Your task to perform on an android device: Empty the shopping cart on newegg. Search for "bose quietcomfort 35" on newegg, select the first entry, add it to the cart, then select checkout. Image 0: 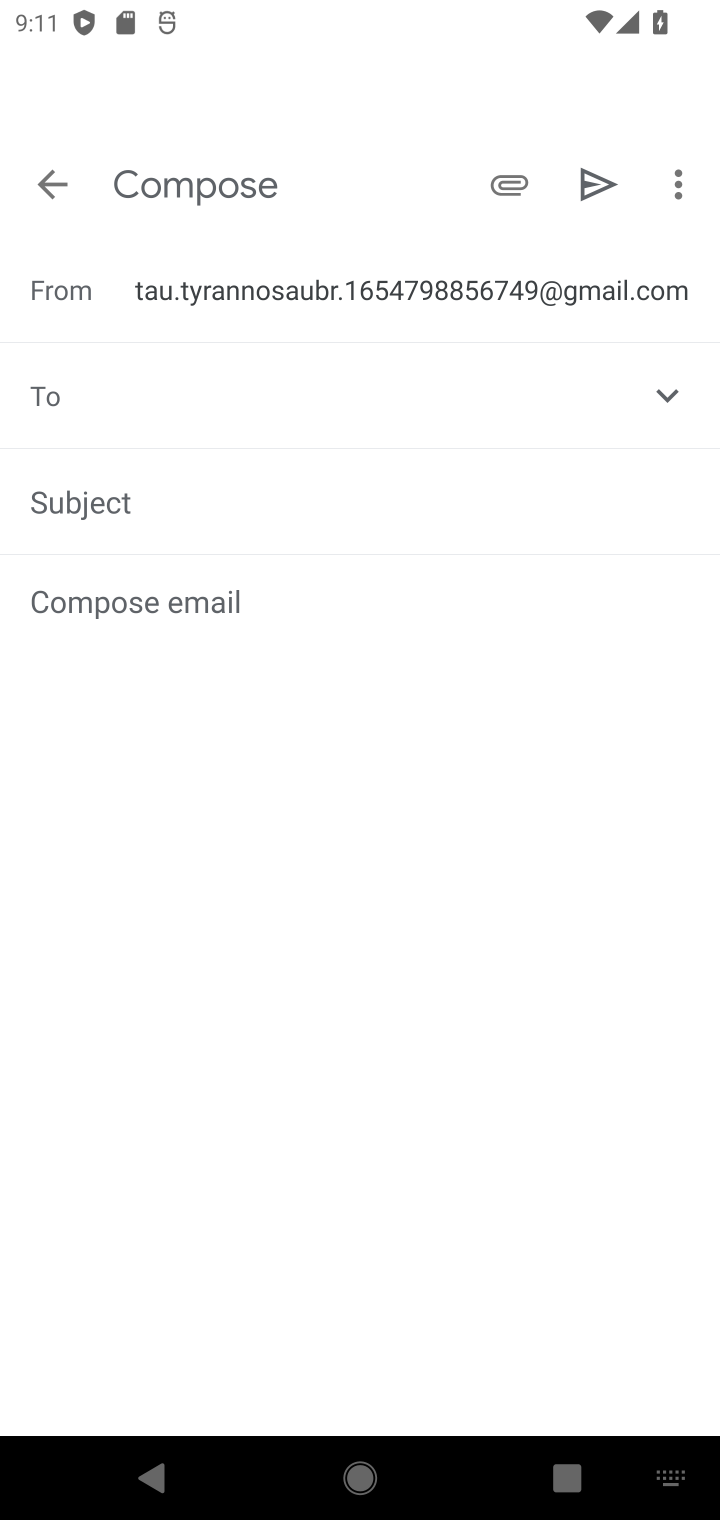
Step 0: press home button
Your task to perform on an android device: Empty the shopping cart on newegg. Search for "bose quietcomfort 35" on newegg, select the first entry, add it to the cart, then select checkout. Image 1: 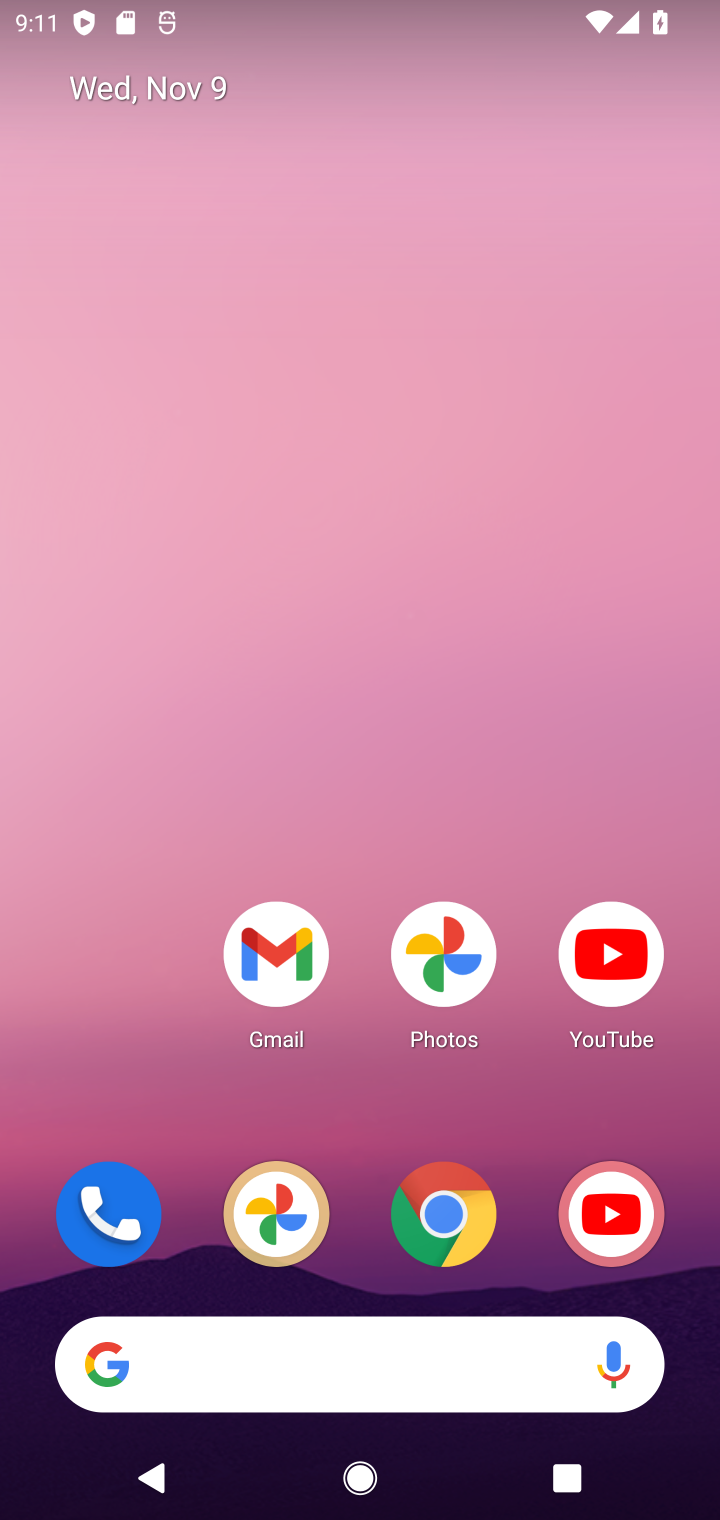
Step 1: drag from (349, 1098) to (235, 0)
Your task to perform on an android device: Empty the shopping cart on newegg. Search for "bose quietcomfort 35" on newegg, select the first entry, add it to the cart, then select checkout. Image 2: 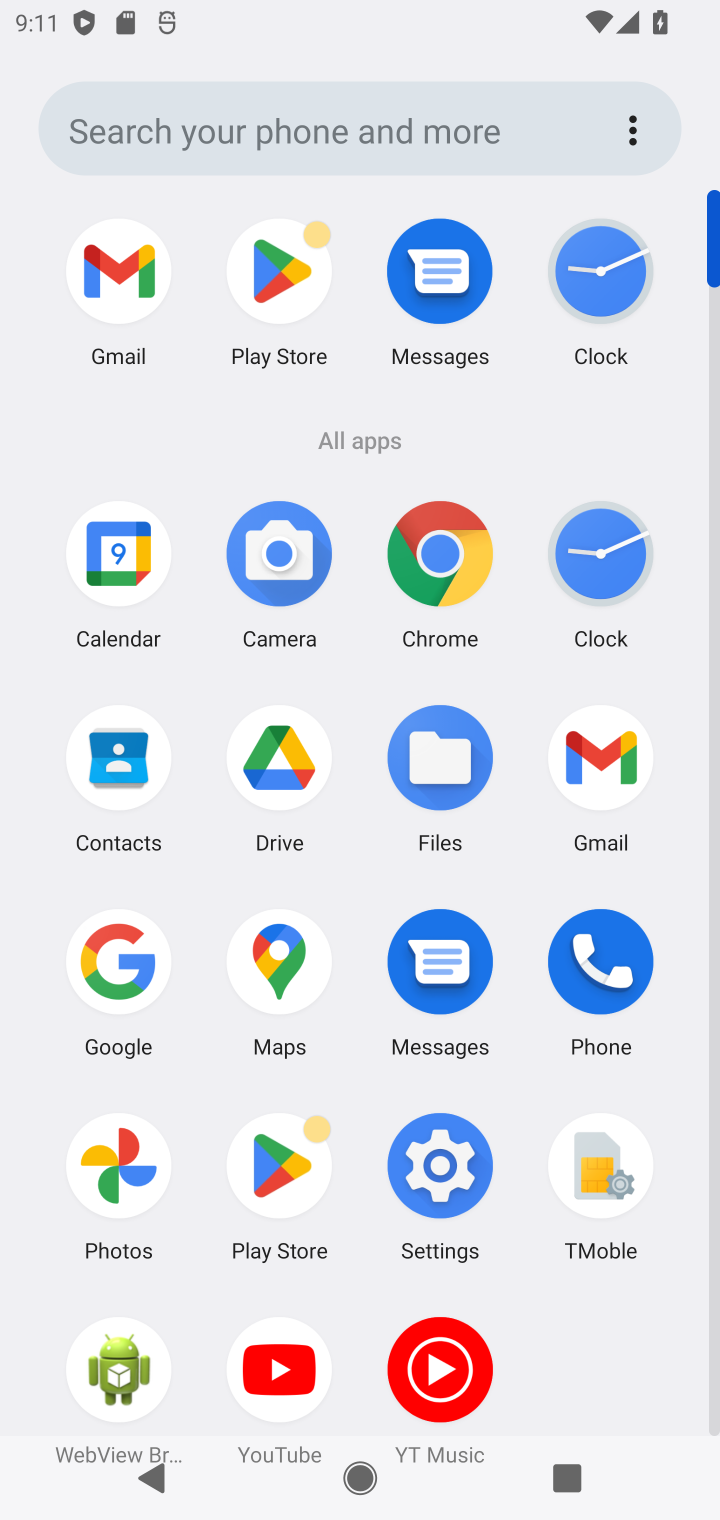
Step 2: click (434, 564)
Your task to perform on an android device: Empty the shopping cart on newegg. Search for "bose quietcomfort 35" on newegg, select the first entry, add it to the cart, then select checkout. Image 3: 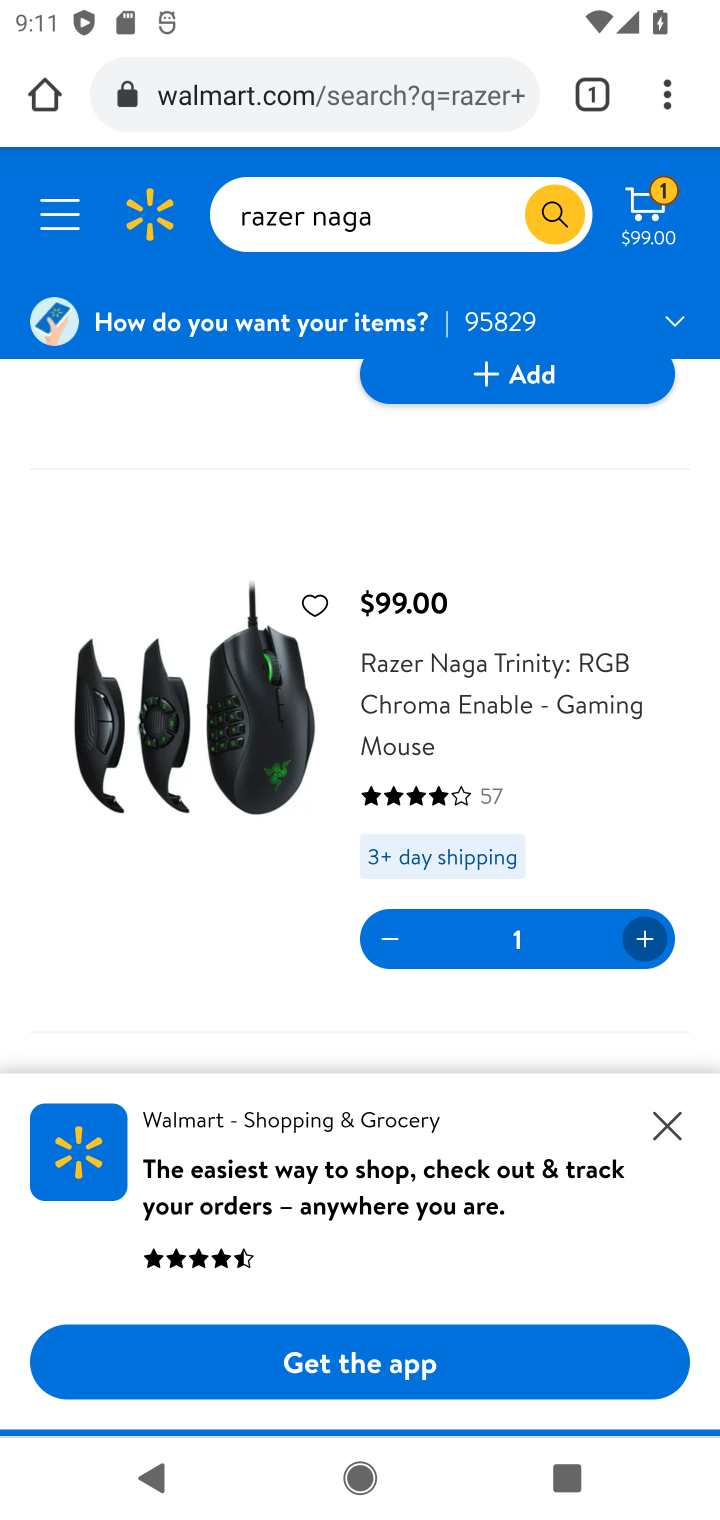
Step 3: click (336, 97)
Your task to perform on an android device: Empty the shopping cart on newegg. Search for "bose quietcomfort 35" on newegg, select the first entry, add it to the cart, then select checkout. Image 4: 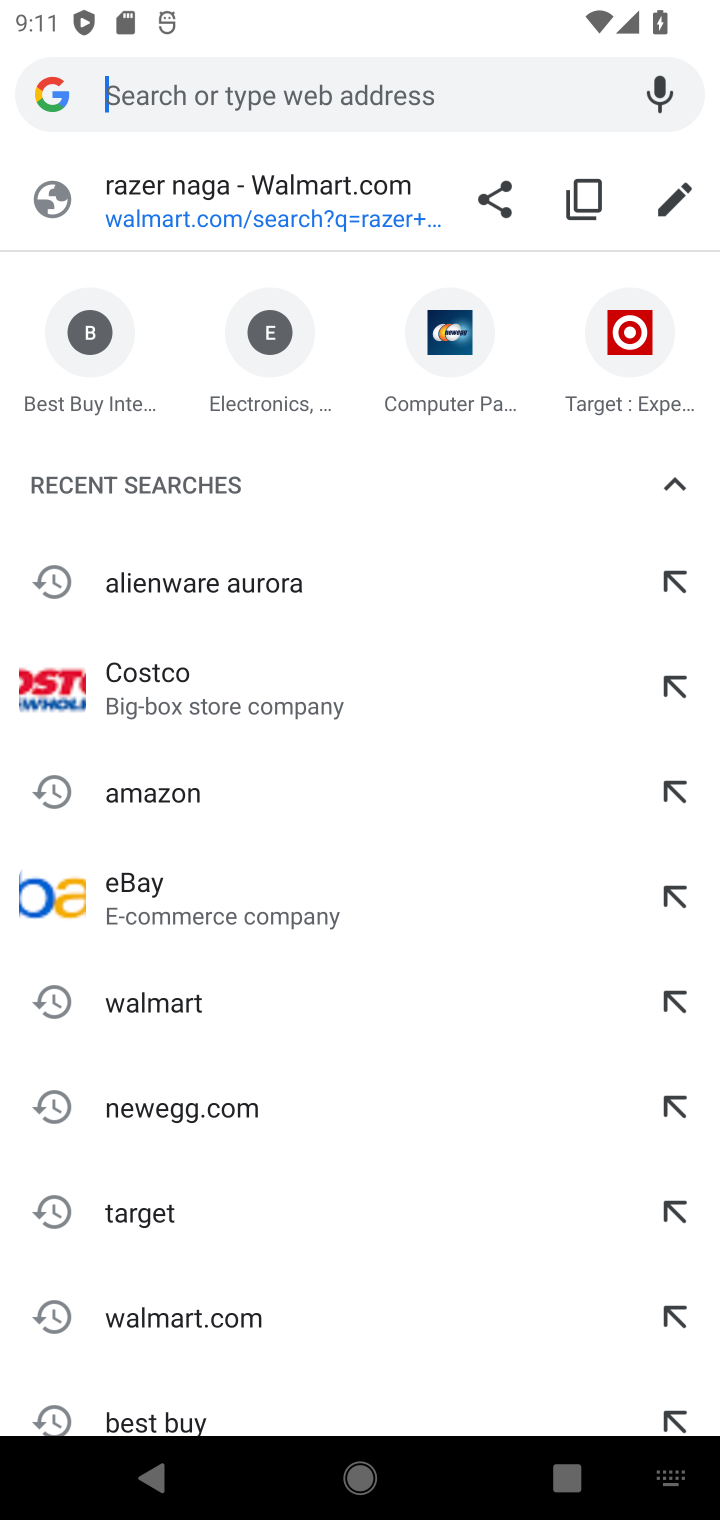
Step 4: type "newegg.com"
Your task to perform on an android device: Empty the shopping cart on newegg. Search for "bose quietcomfort 35" on newegg, select the first entry, add it to the cart, then select checkout. Image 5: 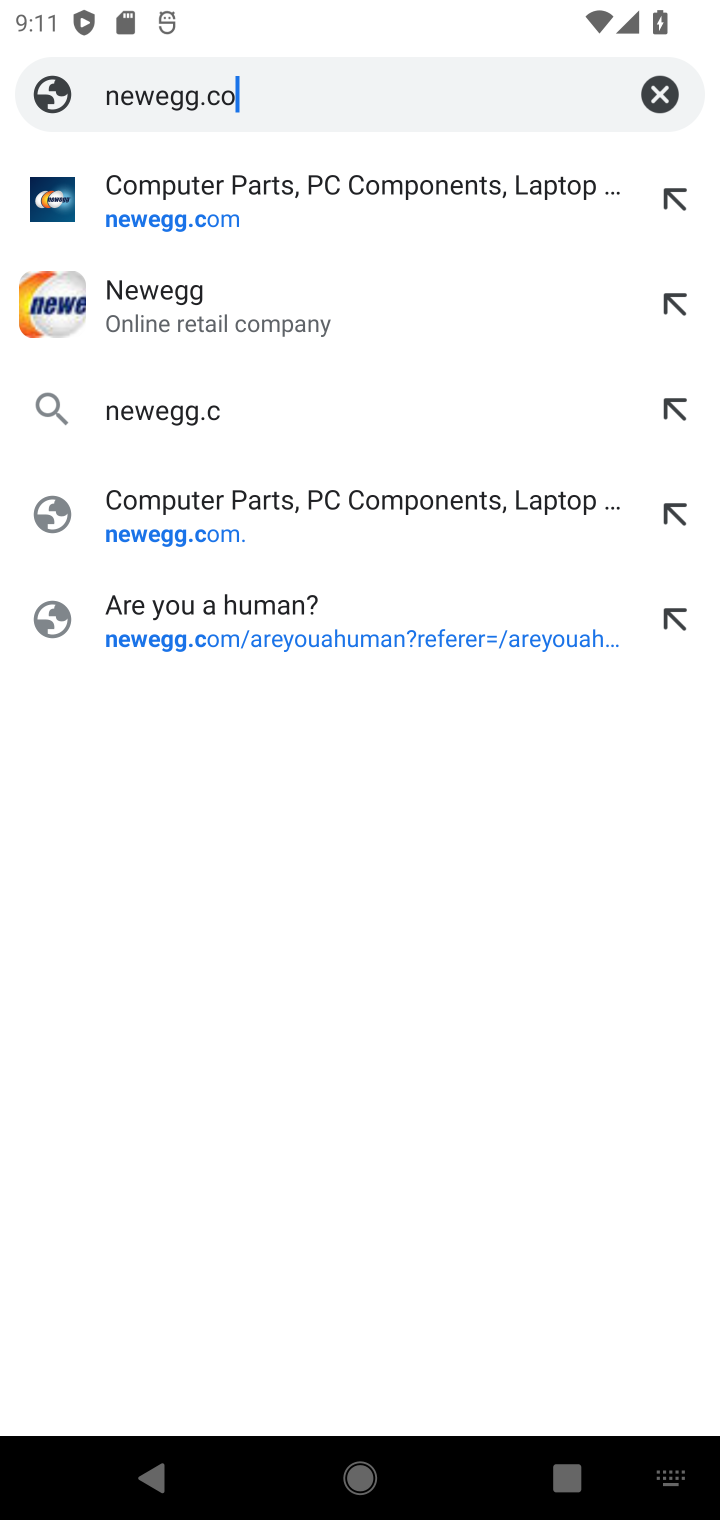
Step 5: press enter
Your task to perform on an android device: Empty the shopping cart on newegg. Search for "bose quietcomfort 35" on newegg, select the first entry, add it to the cart, then select checkout. Image 6: 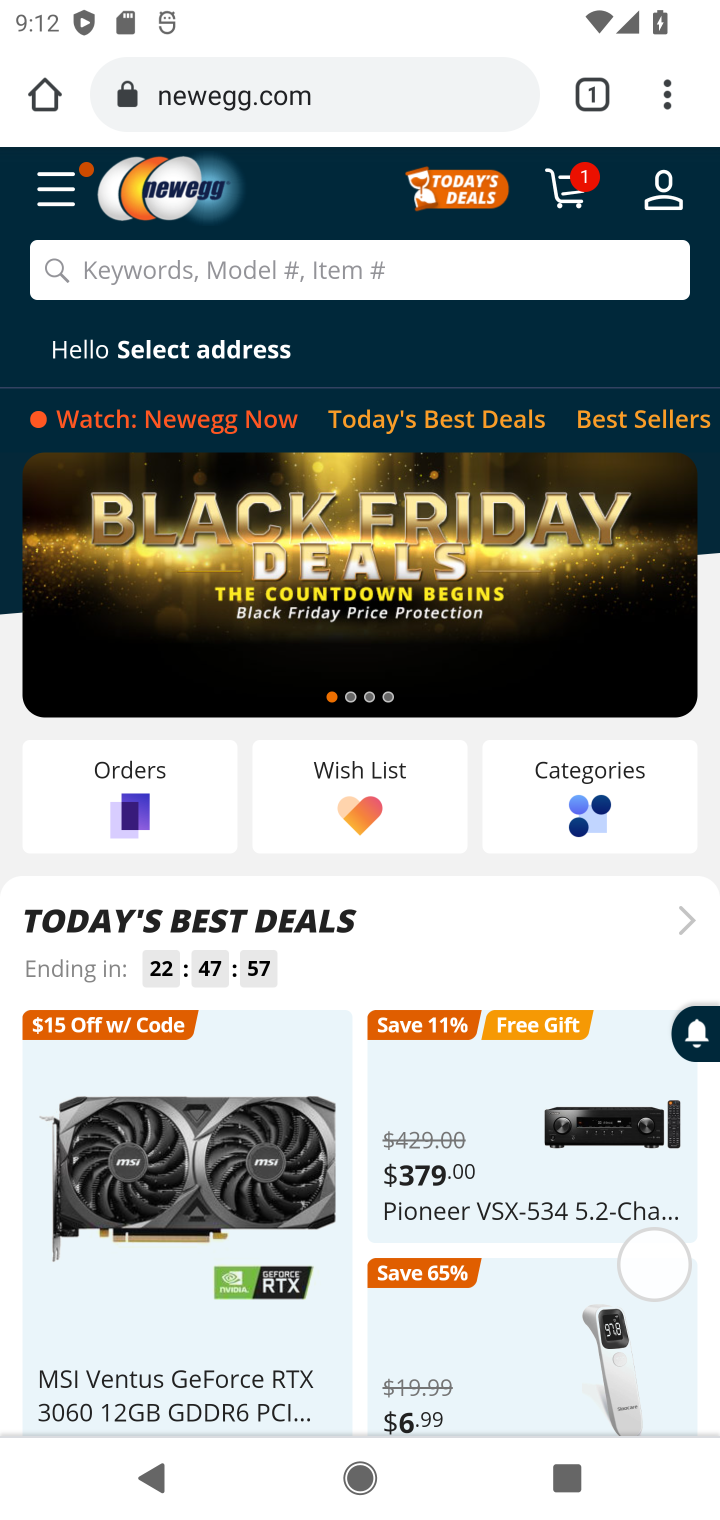
Step 6: click (583, 175)
Your task to perform on an android device: Empty the shopping cart on newegg. Search for "bose quietcomfort 35" on newegg, select the first entry, add it to the cart, then select checkout. Image 7: 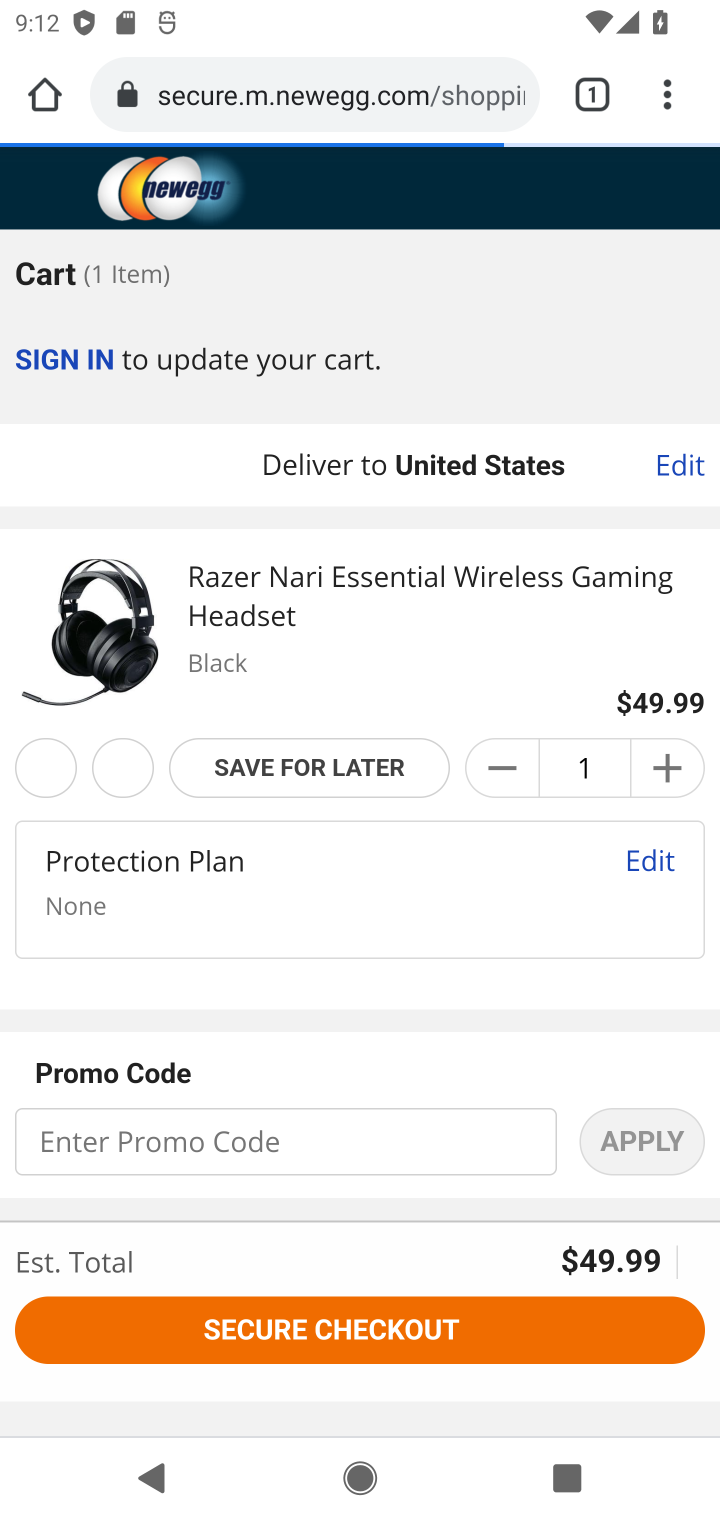
Step 7: click (570, 195)
Your task to perform on an android device: Empty the shopping cart on newegg. Search for "bose quietcomfort 35" on newegg, select the first entry, add it to the cart, then select checkout. Image 8: 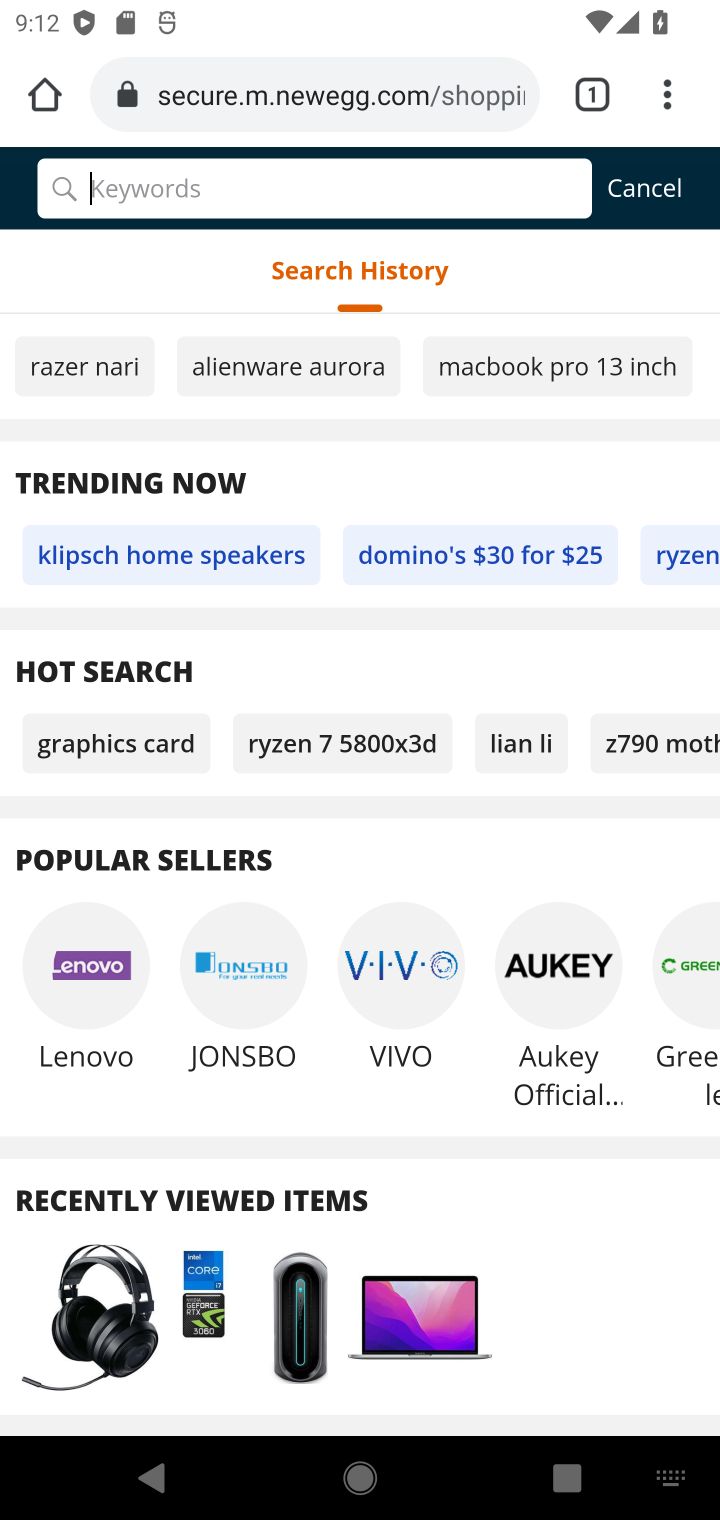
Step 8: click (611, 201)
Your task to perform on an android device: Empty the shopping cart on newegg. Search for "bose quietcomfort 35" on newegg, select the first entry, add it to the cart, then select checkout. Image 9: 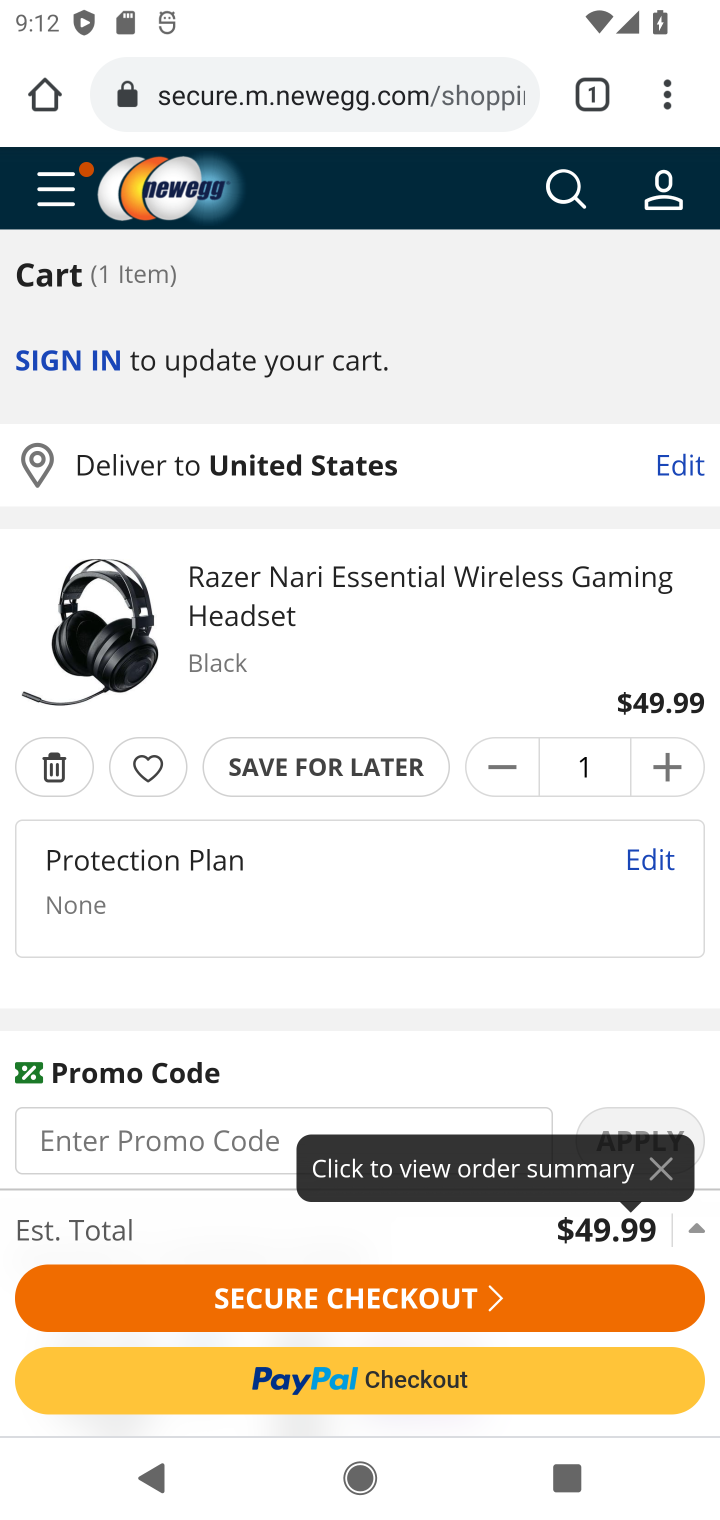
Step 9: click (46, 778)
Your task to perform on an android device: Empty the shopping cart on newegg. Search for "bose quietcomfort 35" on newegg, select the first entry, add it to the cart, then select checkout. Image 10: 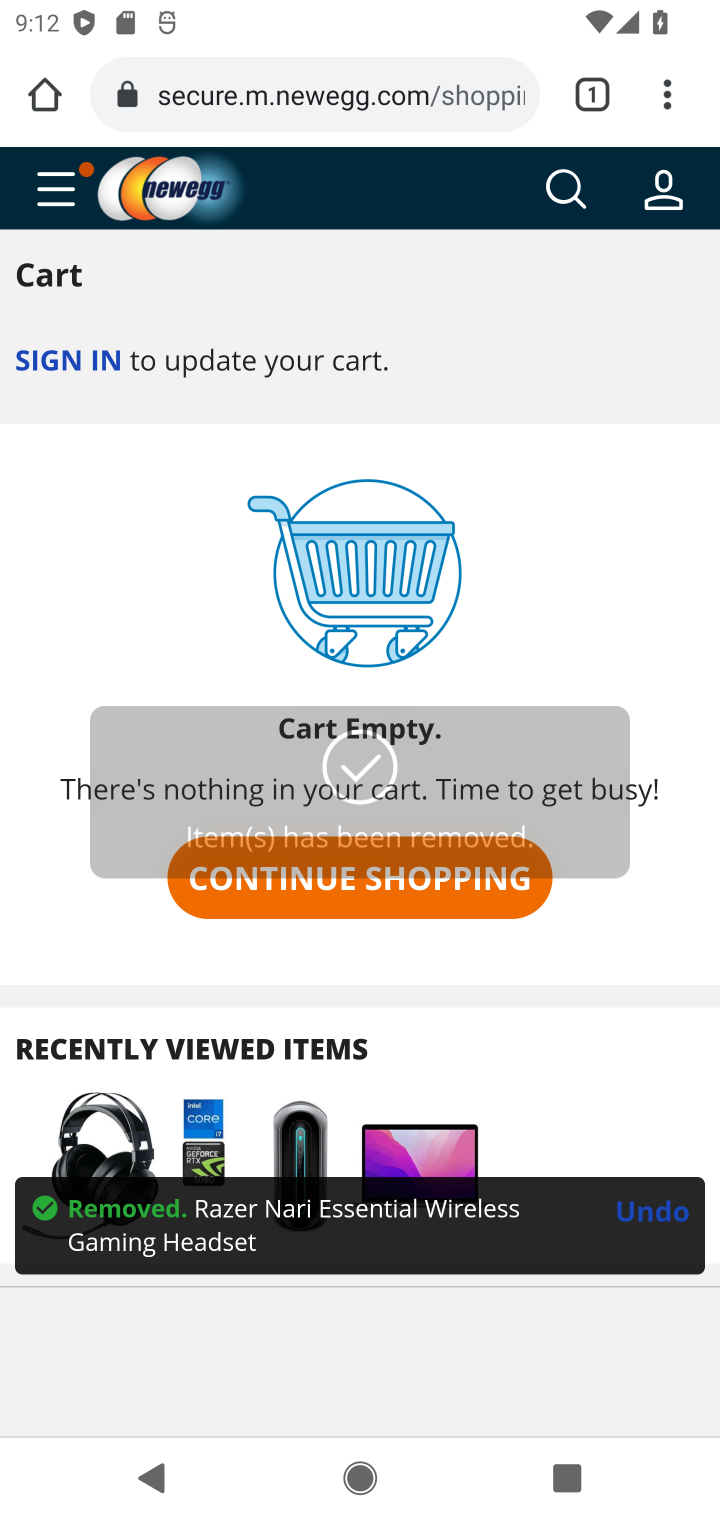
Step 10: click (580, 208)
Your task to perform on an android device: Empty the shopping cart on newegg. Search for "bose quietcomfort 35" on newegg, select the first entry, add it to the cart, then select checkout. Image 11: 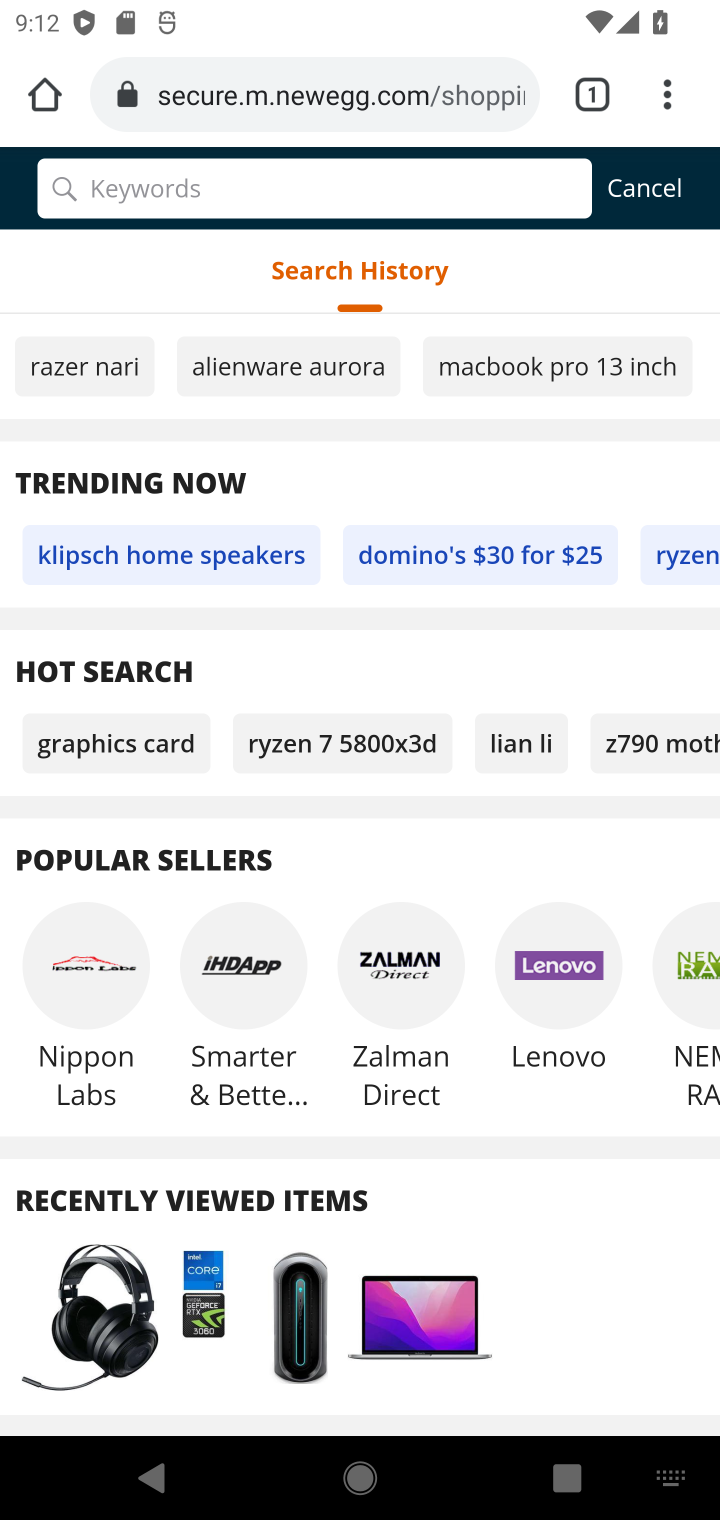
Step 11: type "bose quietcomfort 35"
Your task to perform on an android device: Empty the shopping cart on newegg. Search for "bose quietcomfort 35" on newegg, select the first entry, add it to the cart, then select checkout. Image 12: 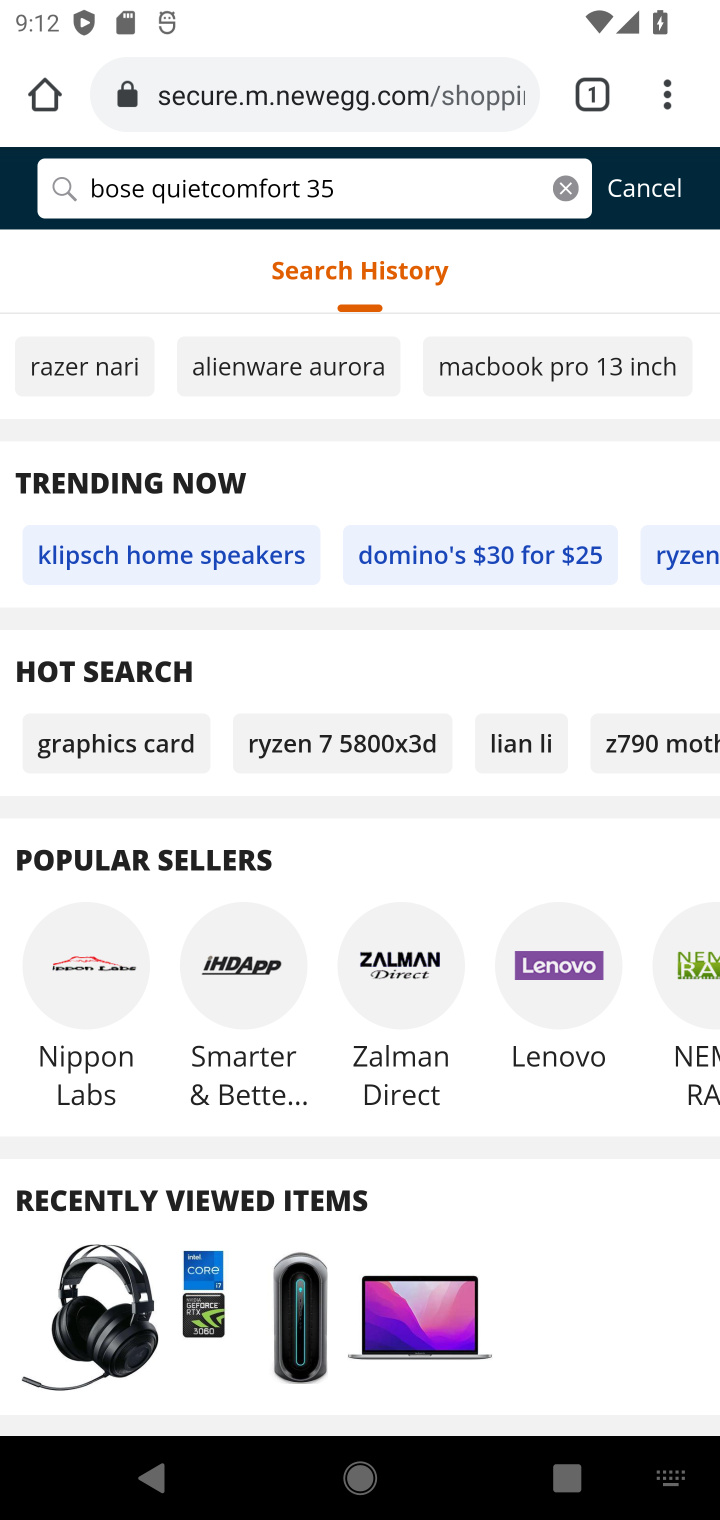
Step 12: press enter
Your task to perform on an android device: Empty the shopping cart on newegg. Search for "bose quietcomfort 35" on newegg, select the first entry, add it to the cart, then select checkout. Image 13: 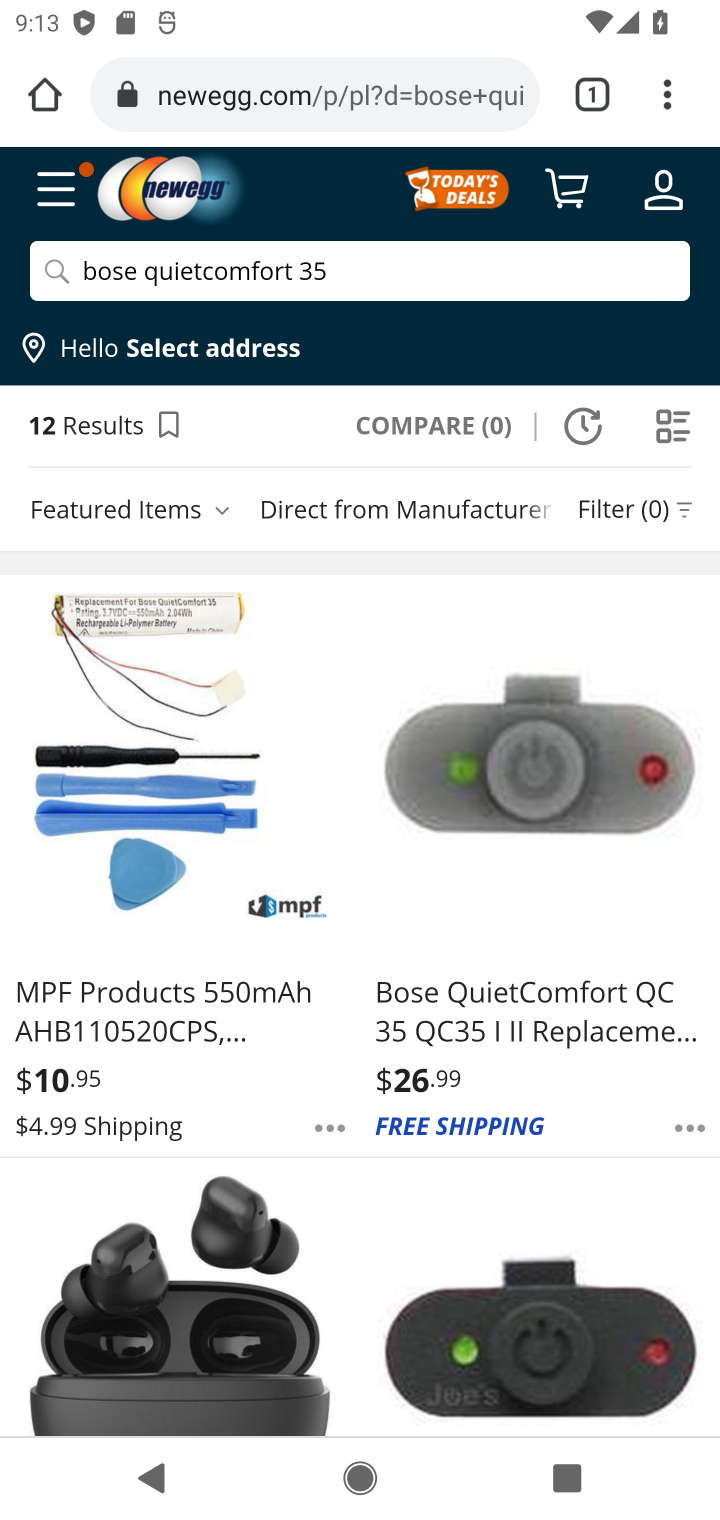
Step 13: task complete